Your task to perform on an android device: Go to network settings Image 0: 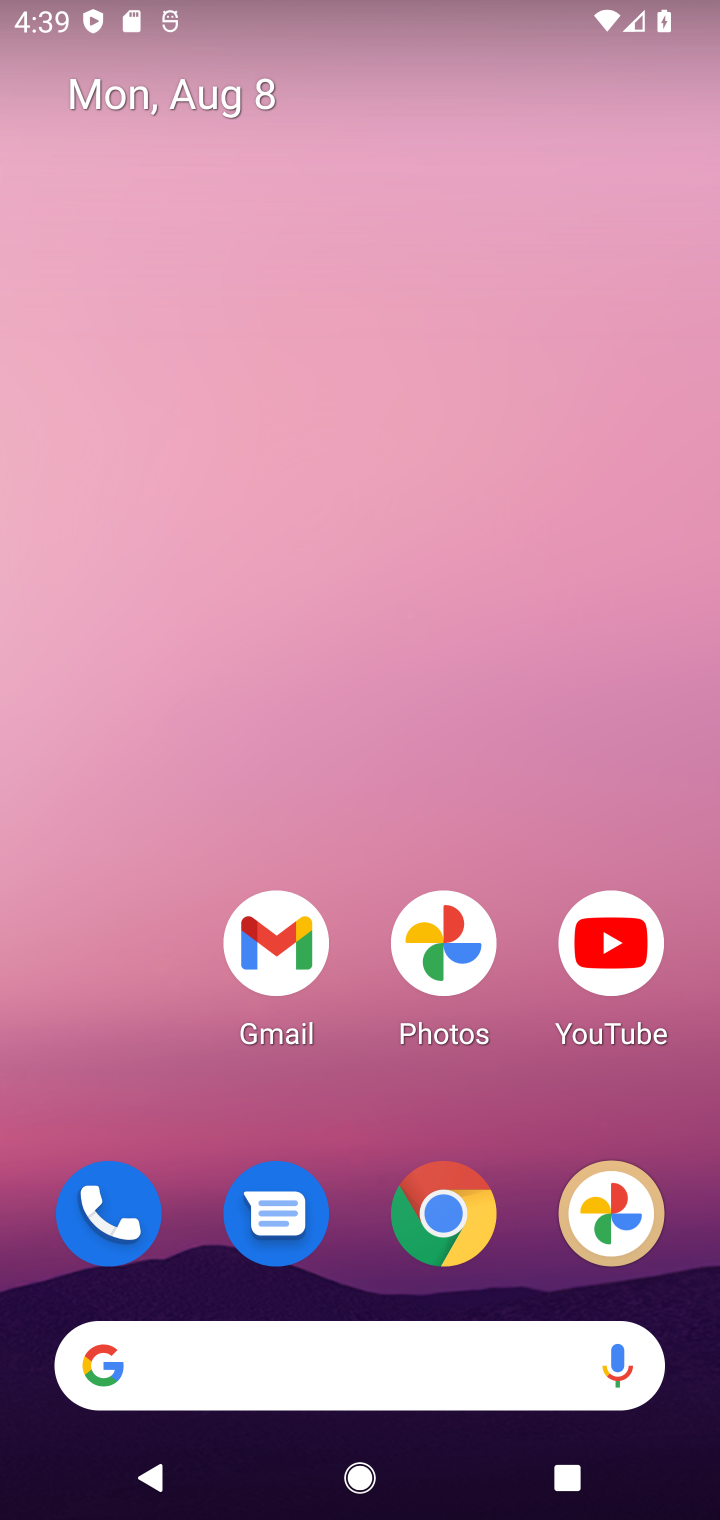
Step 0: click (304, 328)
Your task to perform on an android device: Go to network settings Image 1: 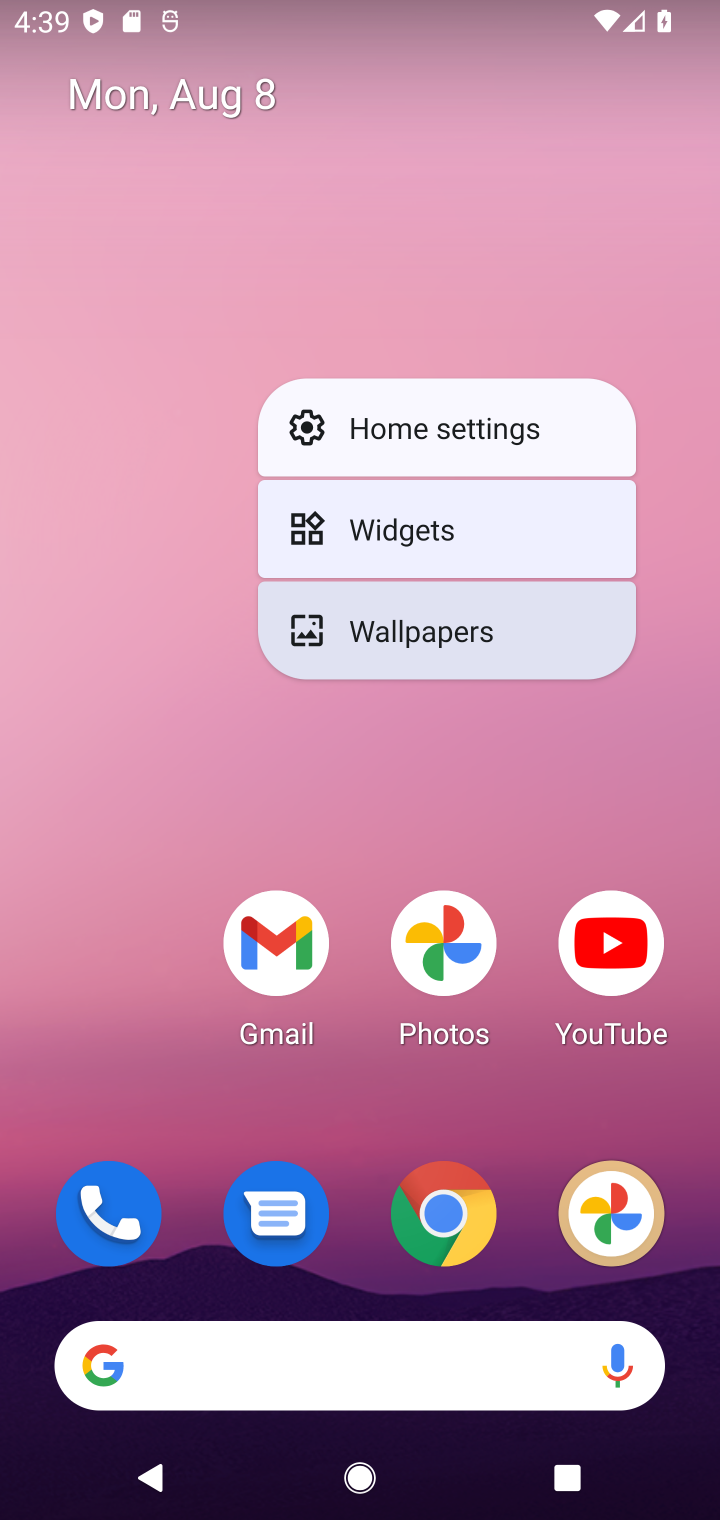
Step 1: click (116, 770)
Your task to perform on an android device: Go to network settings Image 2: 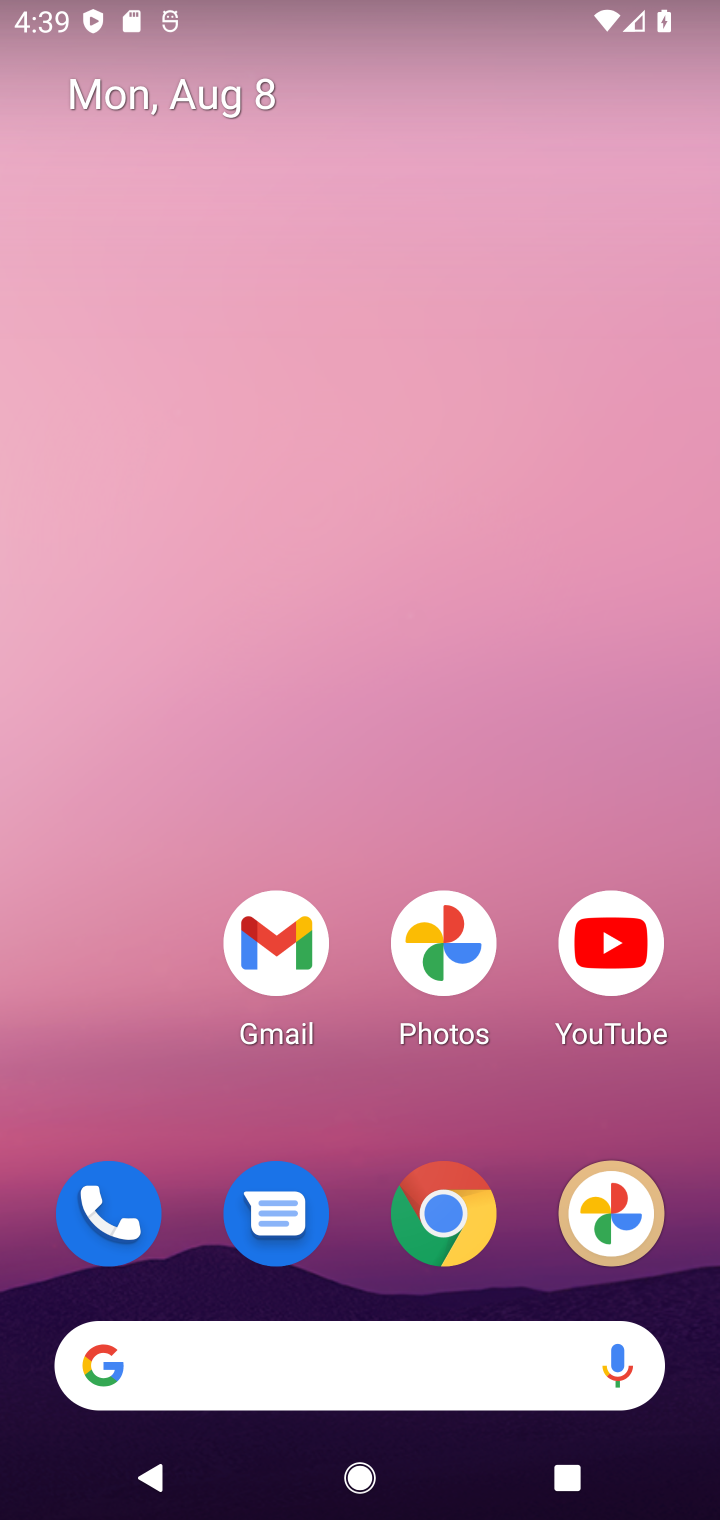
Step 2: drag from (335, 616) to (355, 15)
Your task to perform on an android device: Go to network settings Image 3: 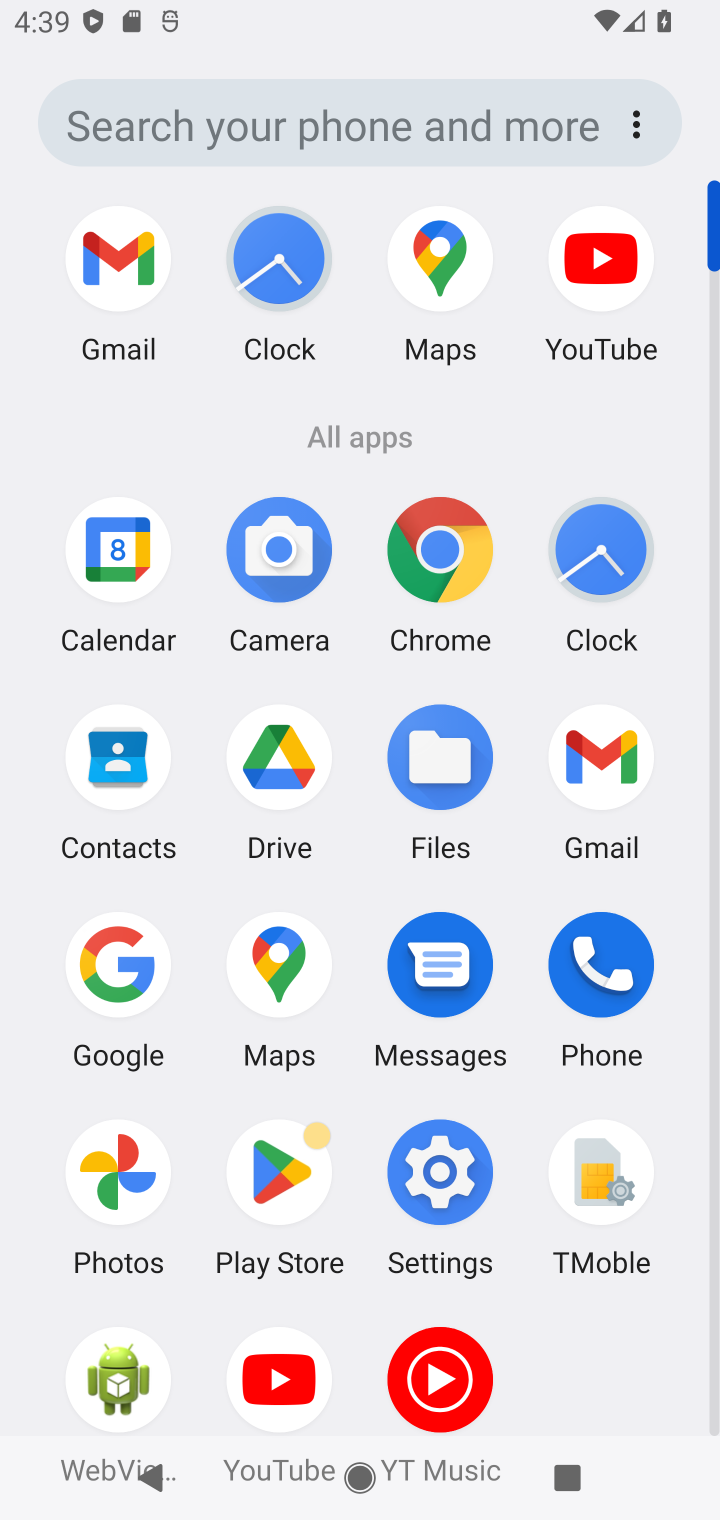
Step 3: click (451, 1207)
Your task to perform on an android device: Go to network settings Image 4: 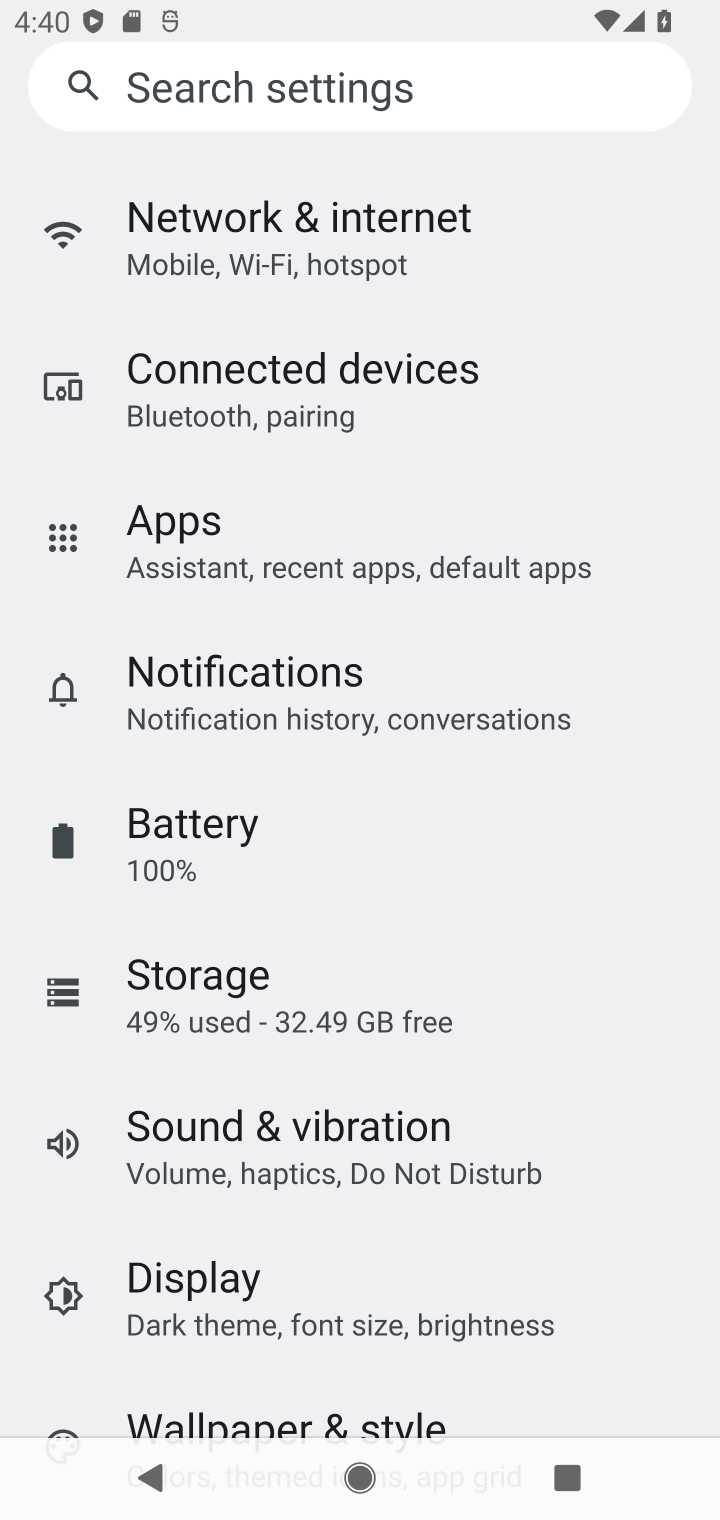
Step 4: click (365, 241)
Your task to perform on an android device: Go to network settings Image 5: 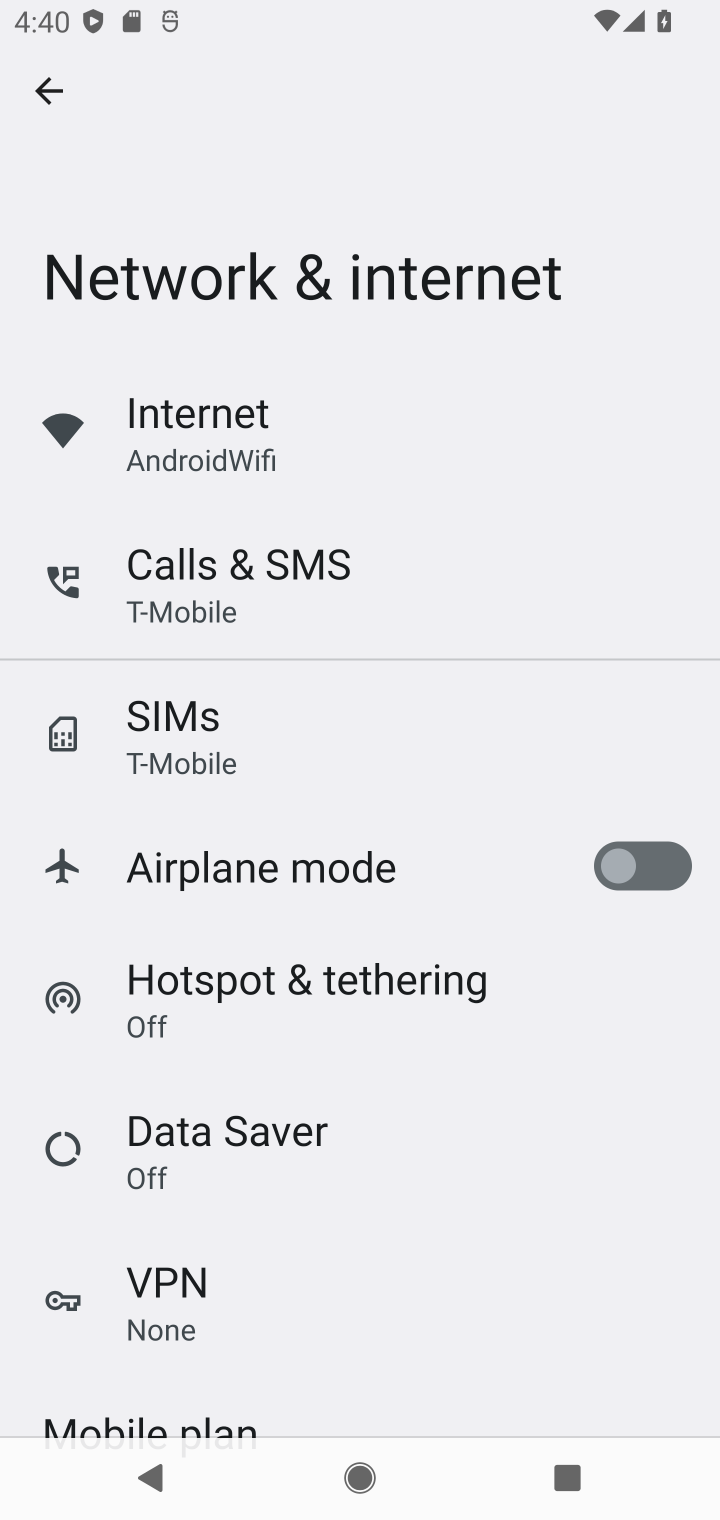
Step 5: task complete